Your task to perform on an android device: Empty the shopping cart on costco. Add "razer blackwidow" to the cart on costco Image 0: 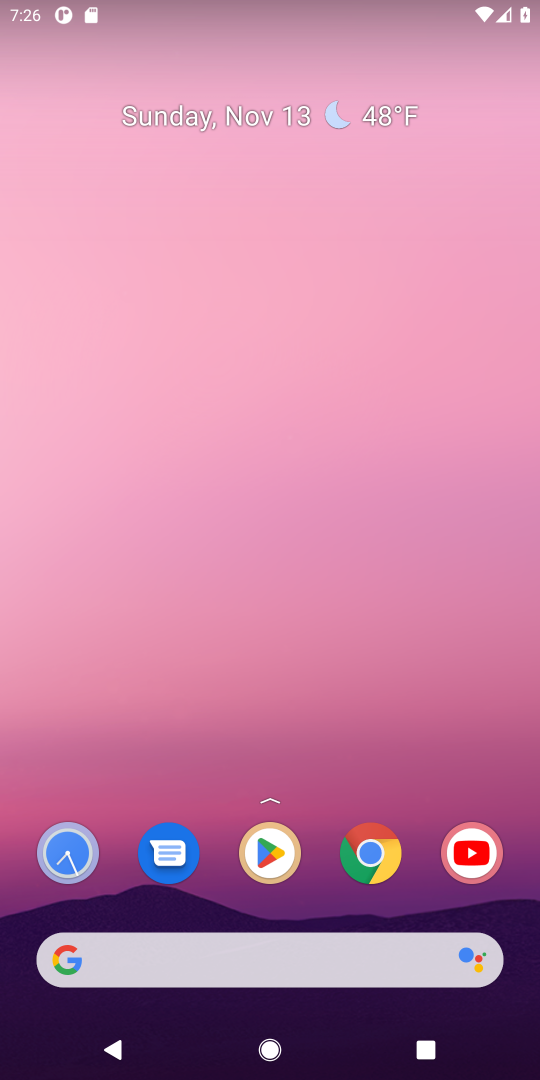
Step 0: press home button
Your task to perform on an android device: Empty the shopping cart on costco. Add "razer blackwidow" to the cart on costco Image 1: 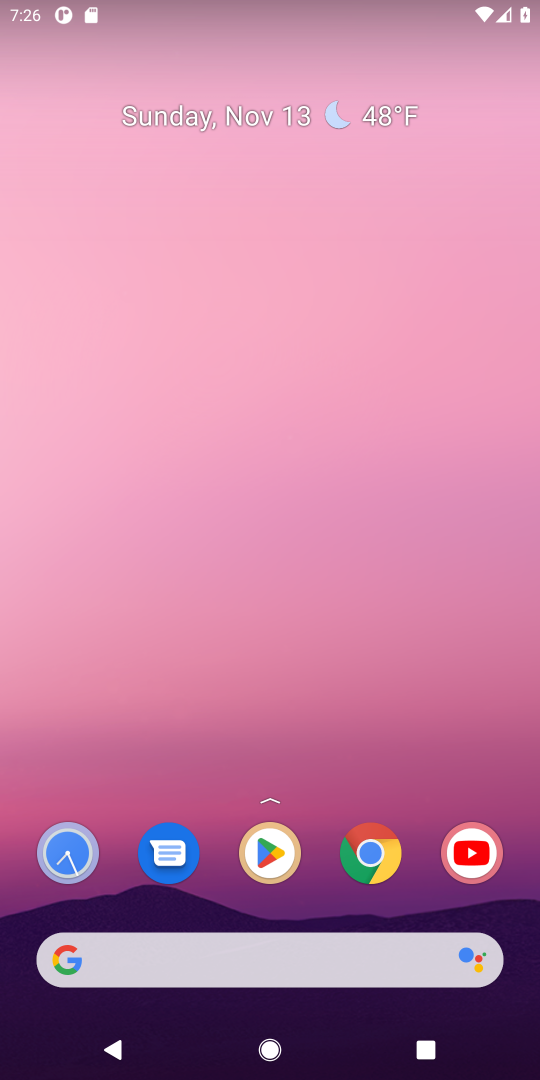
Step 1: click (95, 955)
Your task to perform on an android device: Empty the shopping cart on costco. Add "razer blackwidow" to the cart on costco Image 2: 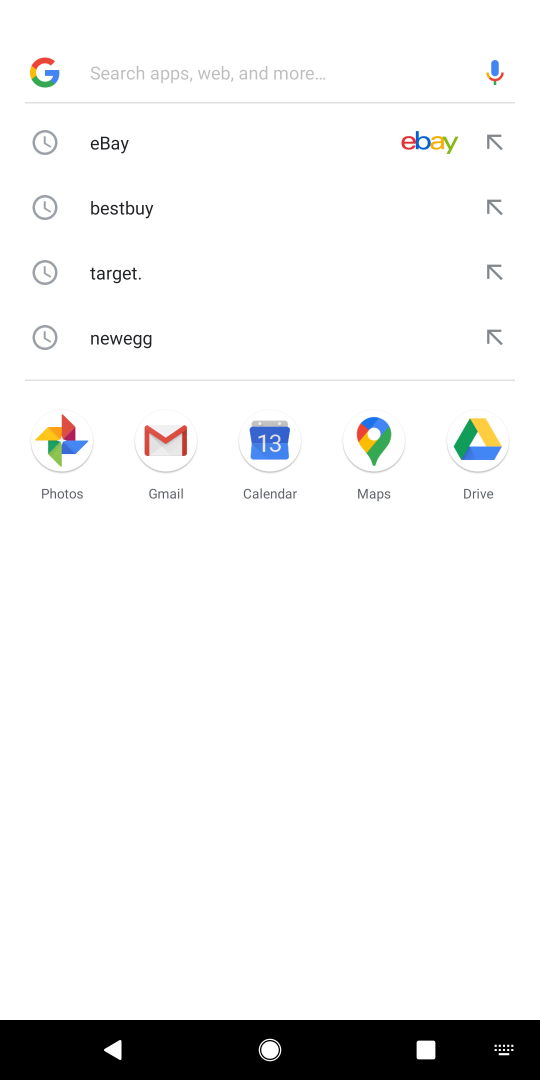
Step 2: type "costco"
Your task to perform on an android device: Empty the shopping cart on costco. Add "razer blackwidow" to the cart on costco Image 3: 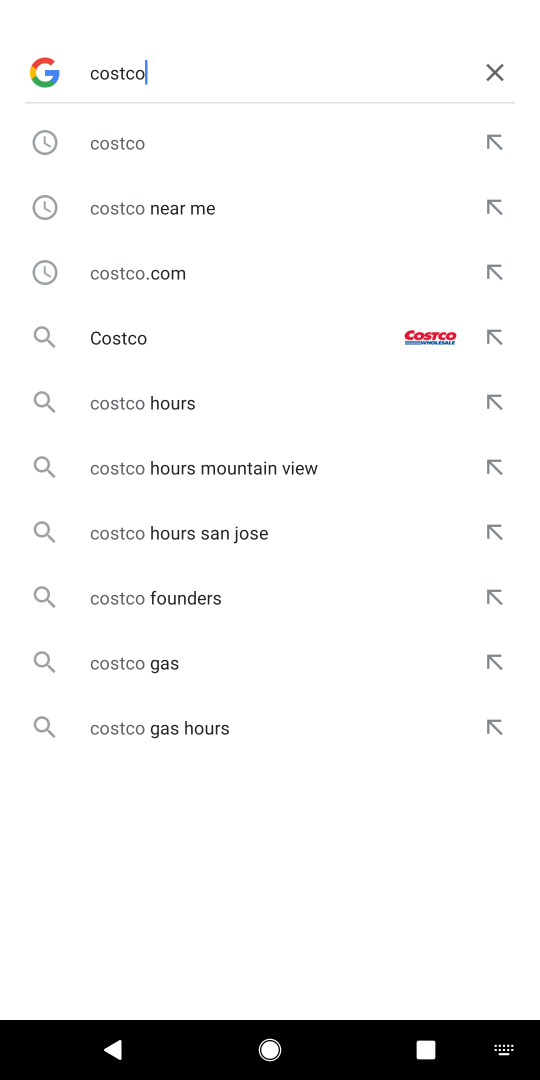
Step 3: press enter
Your task to perform on an android device: Empty the shopping cart on costco. Add "razer blackwidow" to the cart on costco Image 4: 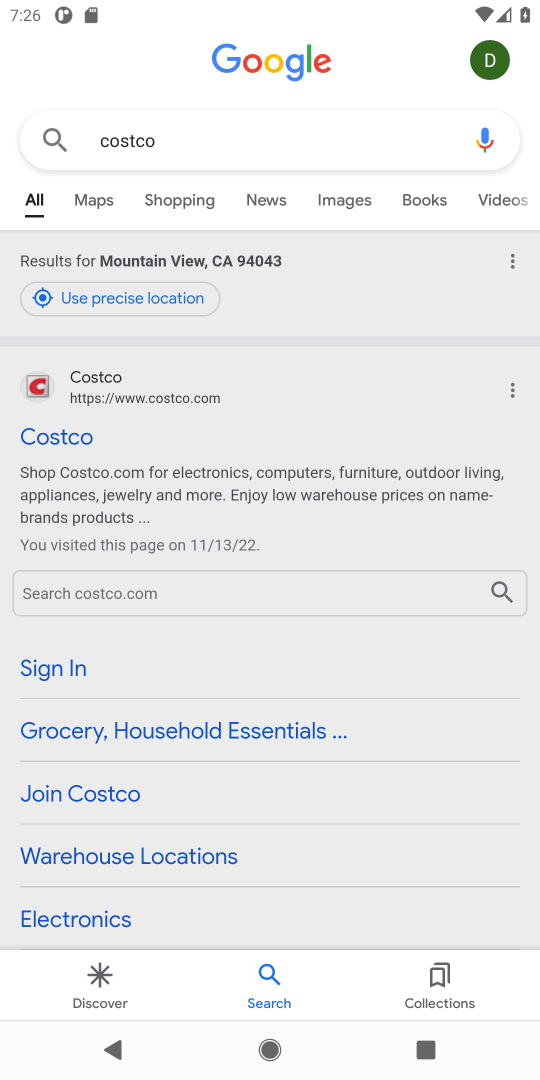
Step 4: click (75, 436)
Your task to perform on an android device: Empty the shopping cart on costco. Add "razer blackwidow" to the cart on costco Image 5: 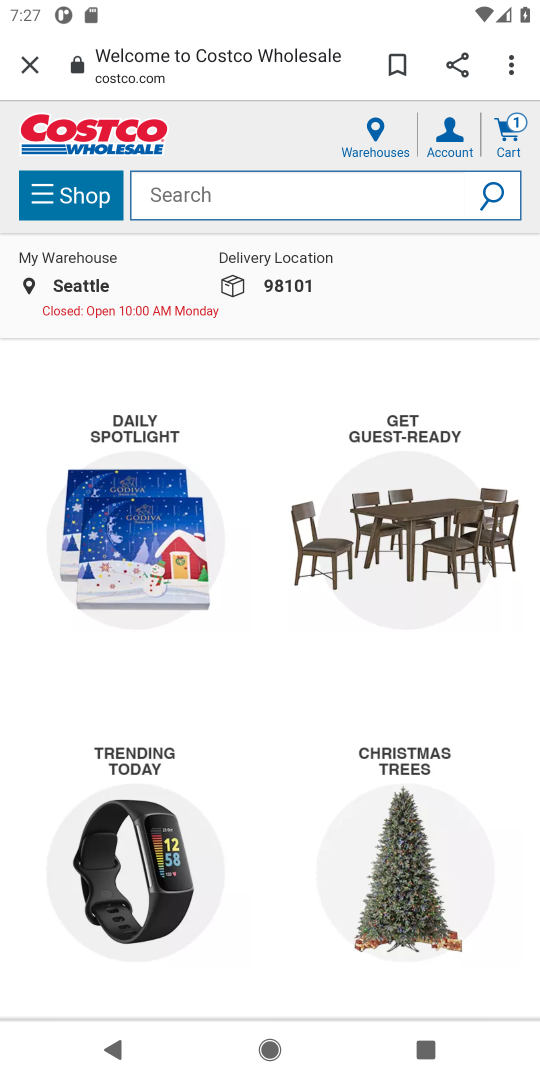
Step 5: click (510, 131)
Your task to perform on an android device: Empty the shopping cart on costco. Add "razer blackwidow" to the cart on costco Image 6: 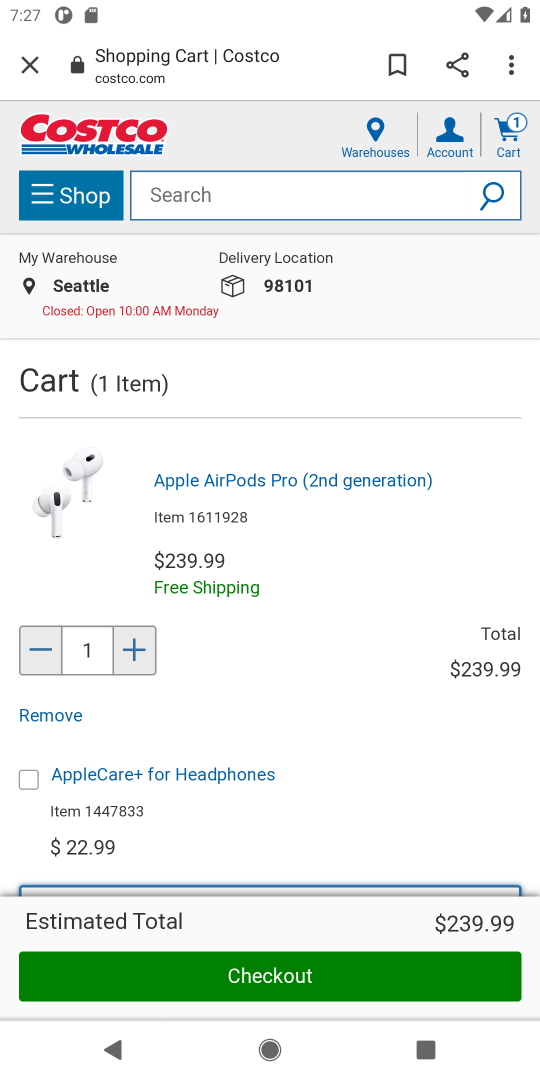
Step 6: click (39, 716)
Your task to perform on an android device: Empty the shopping cart on costco. Add "razer blackwidow" to the cart on costco Image 7: 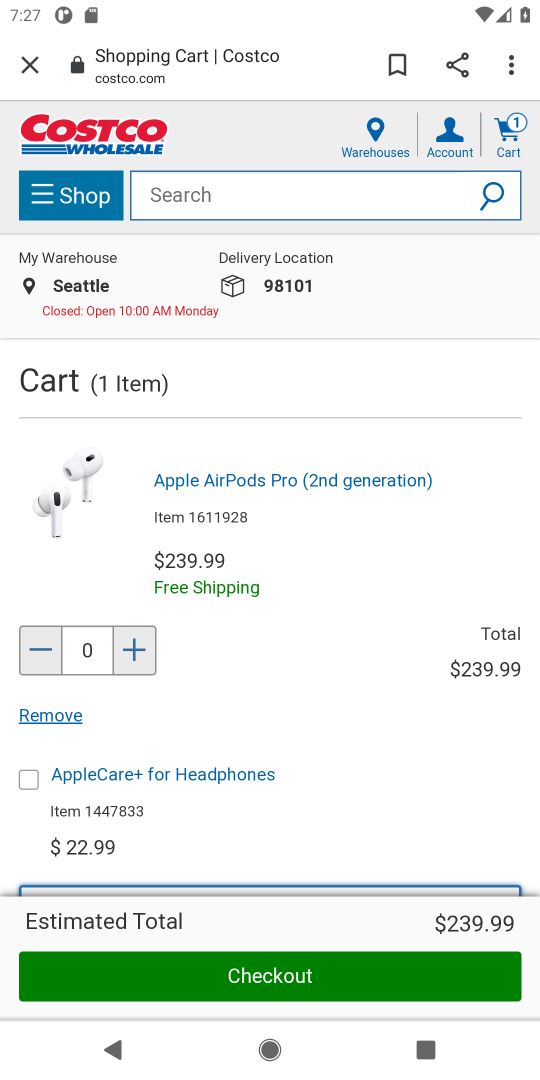
Step 7: click (39, 716)
Your task to perform on an android device: Empty the shopping cart on costco. Add "razer blackwidow" to the cart on costco Image 8: 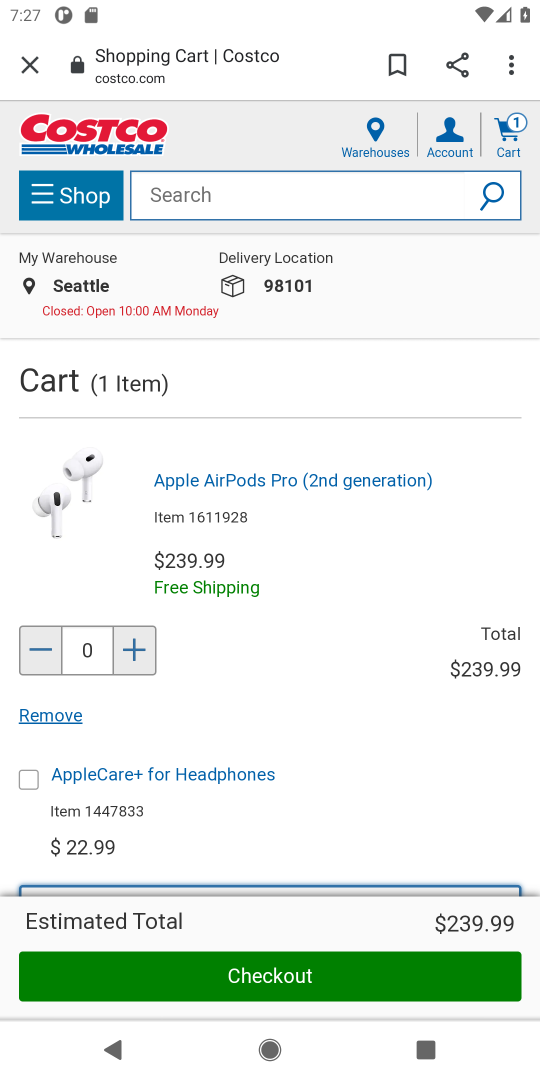
Step 8: click (39, 716)
Your task to perform on an android device: Empty the shopping cart on costco. Add "razer blackwidow" to the cart on costco Image 9: 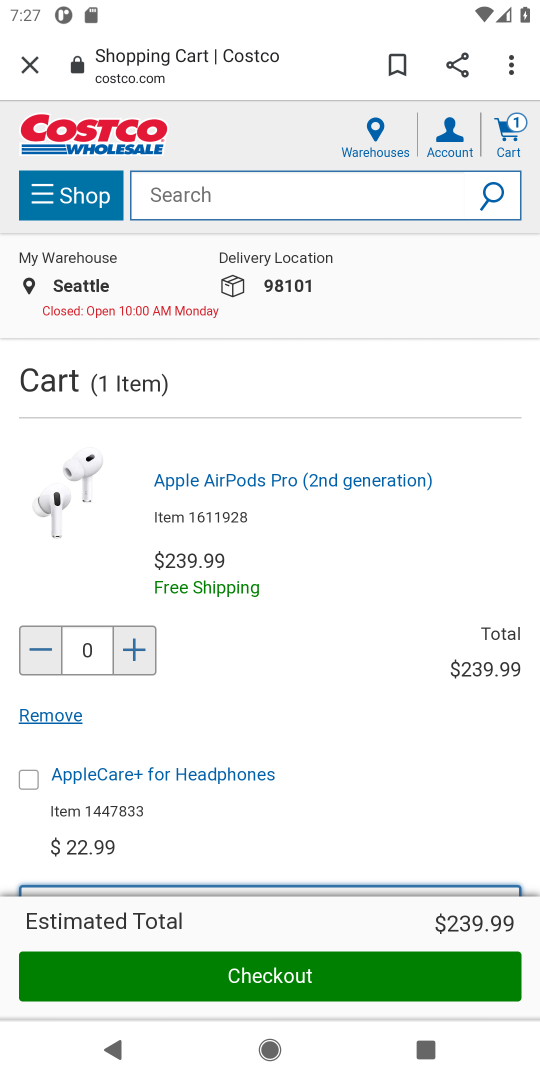
Step 9: click (39, 716)
Your task to perform on an android device: Empty the shopping cart on costco. Add "razer blackwidow" to the cart on costco Image 10: 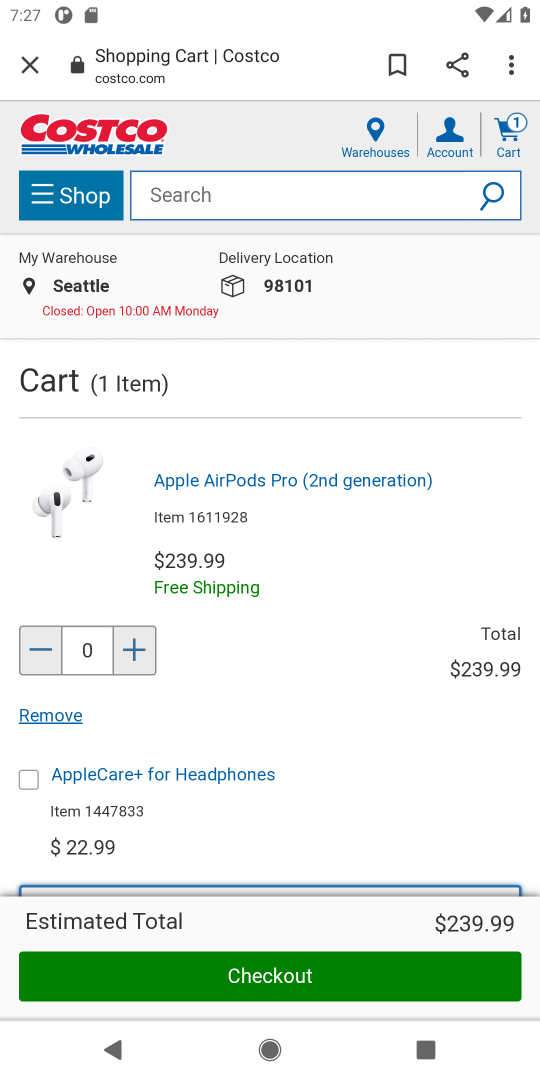
Step 10: click (61, 711)
Your task to perform on an android device: Empty the shopping cart on costco. Add "razer blackwidow" to the cart on costco Image 11: 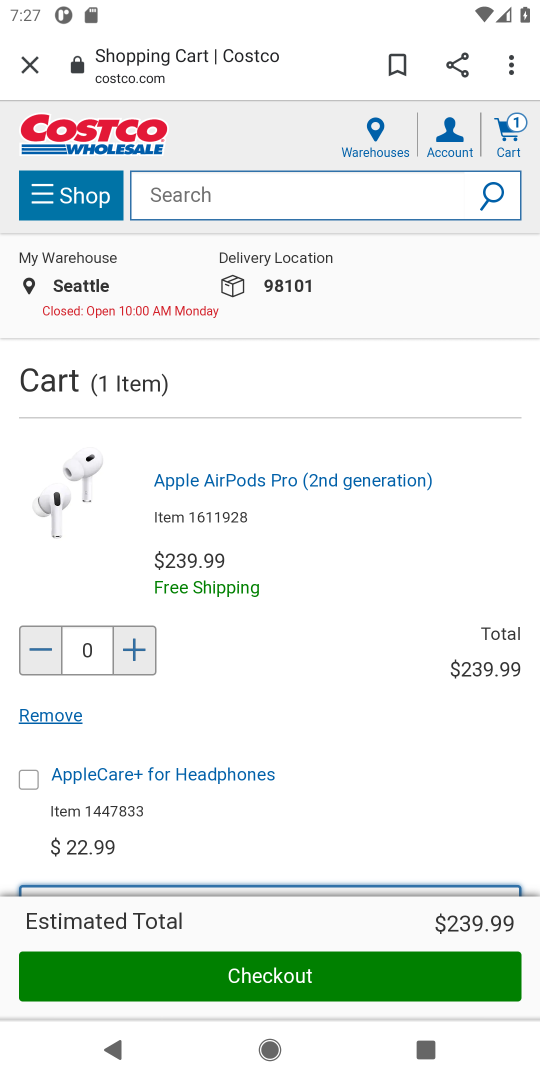
Step 11: click (52, 713)
Your task to perform on an android device: Empty the shopping cart on costco. Add "razer blackwidow" to the cart on costco Image 12: 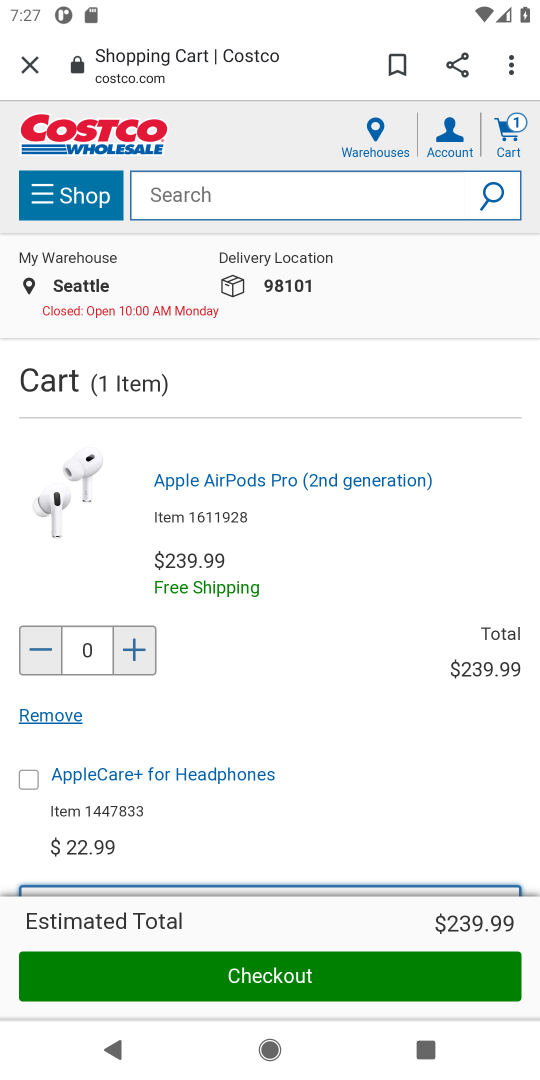
Step 12: task complete